Your task to perform on an android device: Search for Italian restaurants on Maps Image 0: 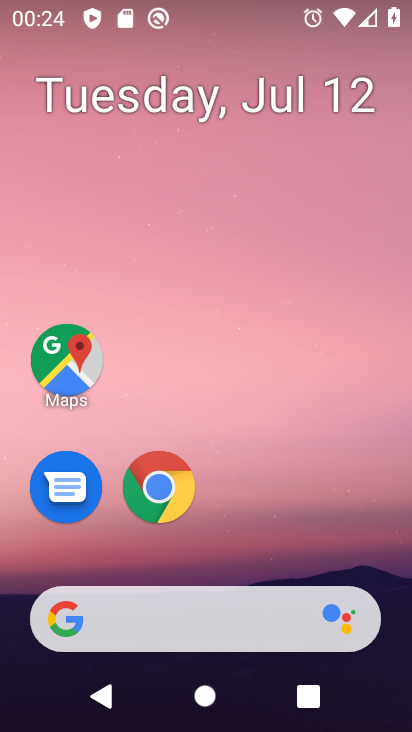
Step 0: drag from (310, 541) to (313, 160)
Your task to perform on an android device: Search for Italian restaurants on Maps Image 1: 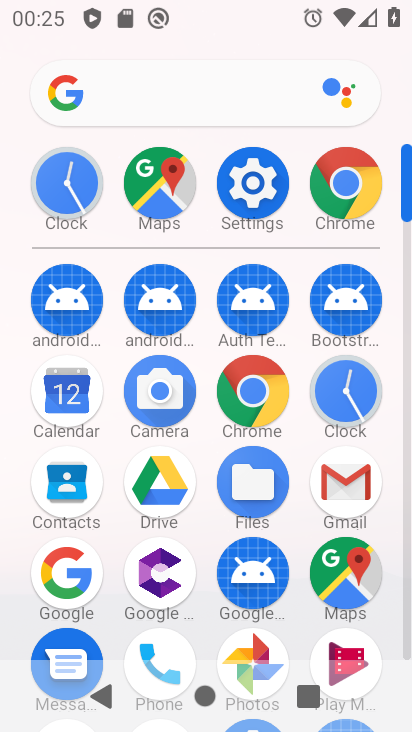
Step 1: click (166, 202)
Your task to perform on an android device: Search for Italian restaurants on Maps Image 2: 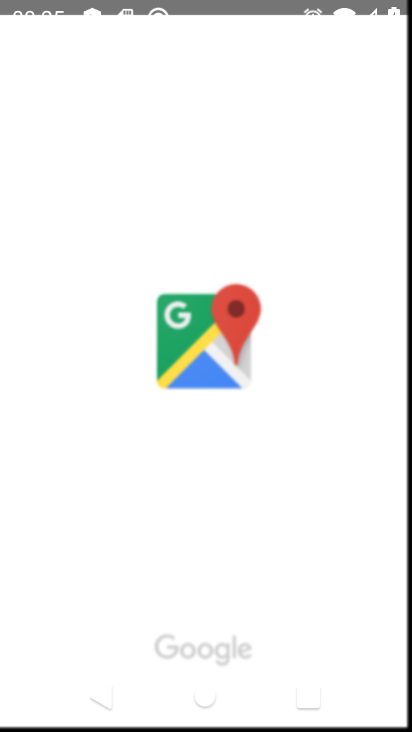
Step 2: task complete